Your task to perform on an android device: Open Android settings Image 0: 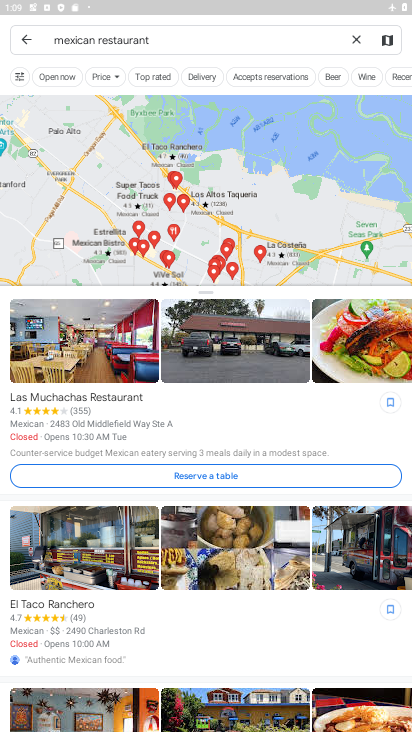
Step 0: press home button
Your task to perform on an android device: Open Android settings Image 1: 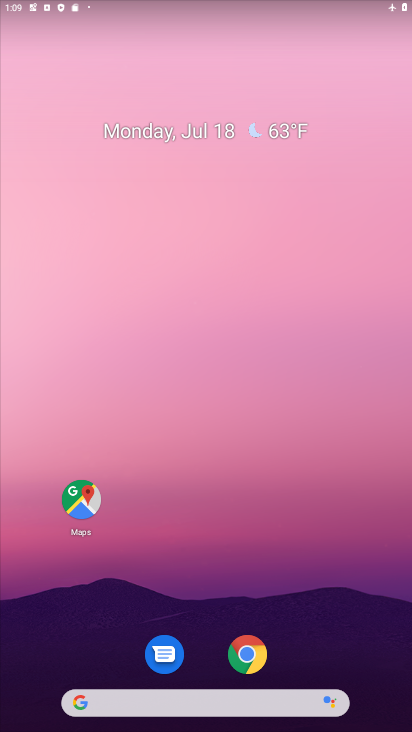
Step 1: drag from (195, 632) to (205, 208)
Your task to perform on an android device: Open Android settings Image 2: 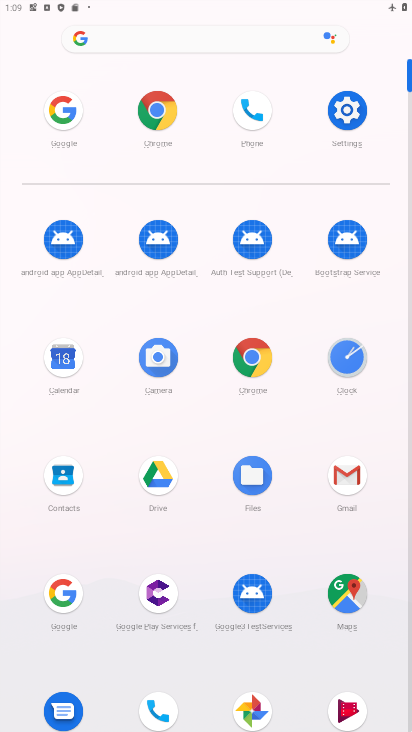
Step 2: click (361, 117)
Your task to perform on an android device: Open Android settings Image 3: 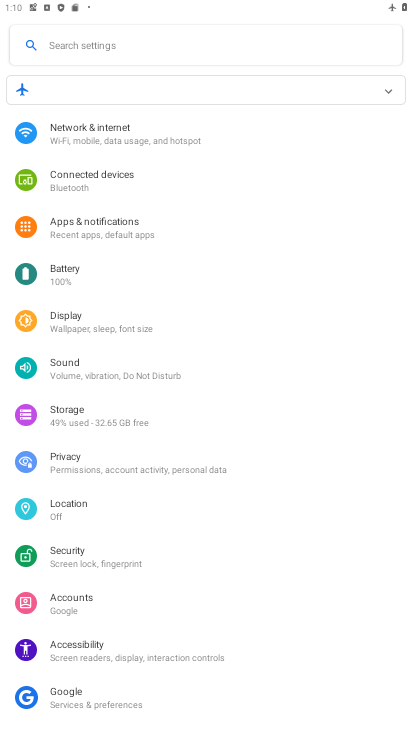
Step 3: task complete